Your task to perform on an android device: turn off translation in the chrome app Image 0: 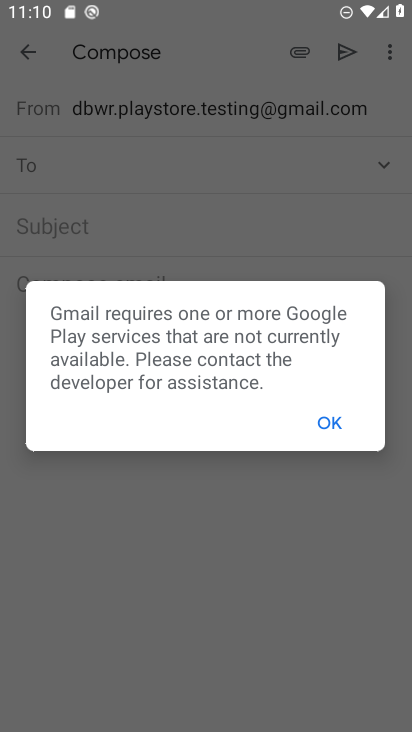
Step 0: press home button
Your task to perform on an android device: turn off translation in the chrome app Image 1: 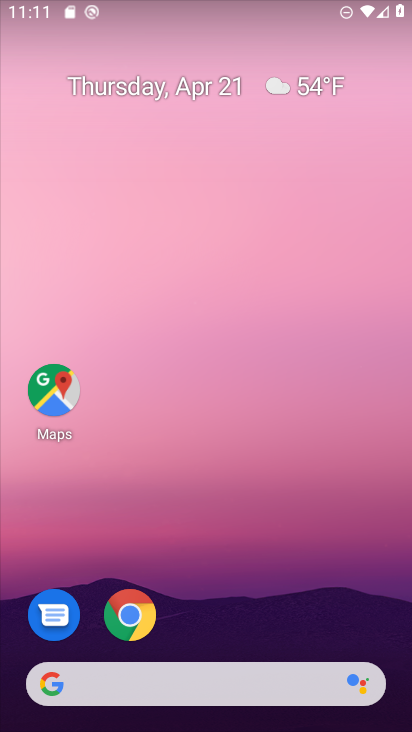
Step 1: click (132, 619)
Your task to perform on an android device: turn off translation in the chrome app Image 2: 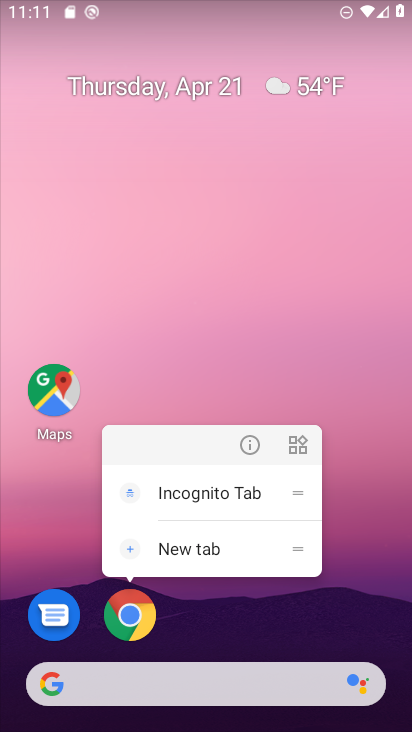
Step 2: click (132, 619)
Your task to perform on an android device: turn off translation in the chrome app Image 3: 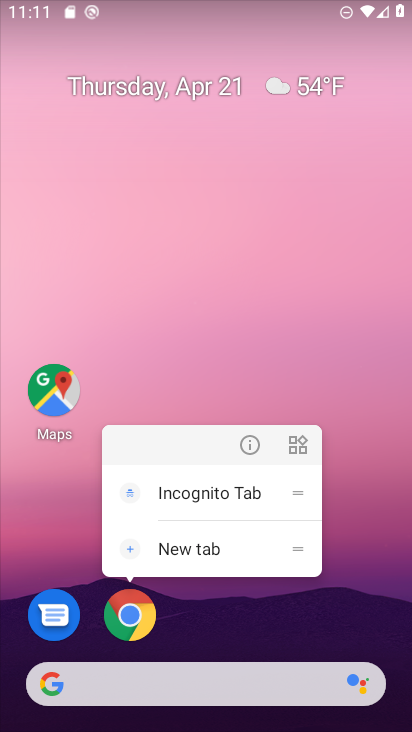
Step 3: click (133, 616)
Your task to perform on an android device: turn off translation in the chrome app Image 4: 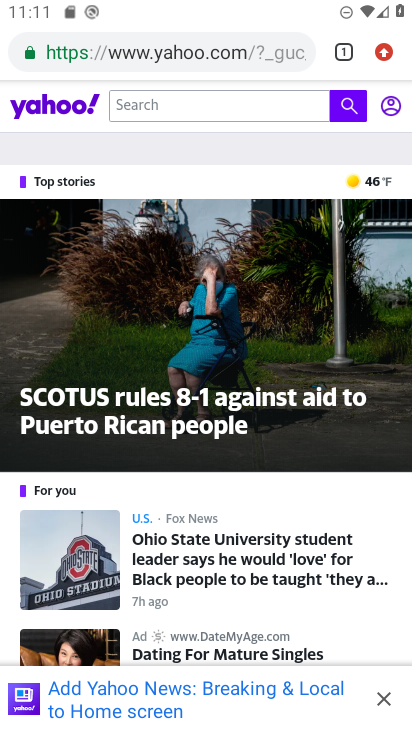
Step 4: click (376, 56)
Your task to perform on an android device: turn off translation in the chrome app Image 5: 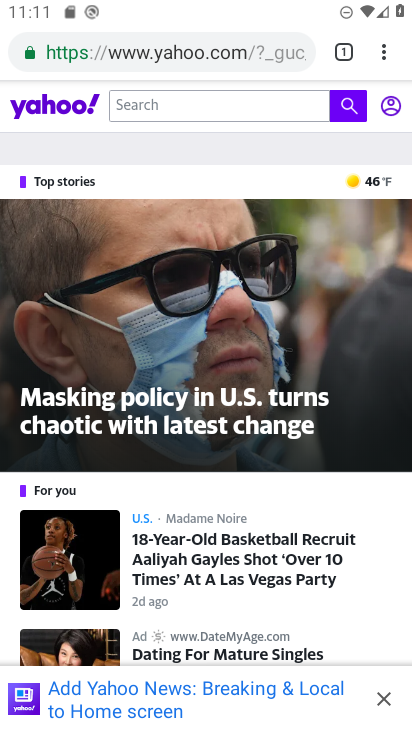
Step 5: click (376, 56)
Your task to perform on an android device: turn off translation in the chrome app Image 6: 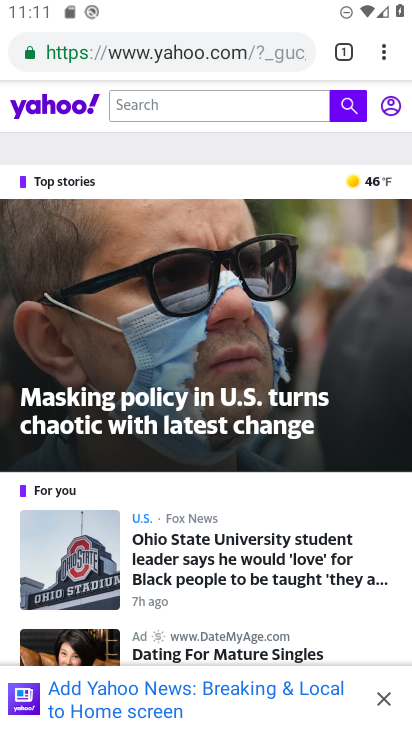
Step 6: click (376, 56)
Your task to perform on an android device: turn off translation in the chrome app Image 7: 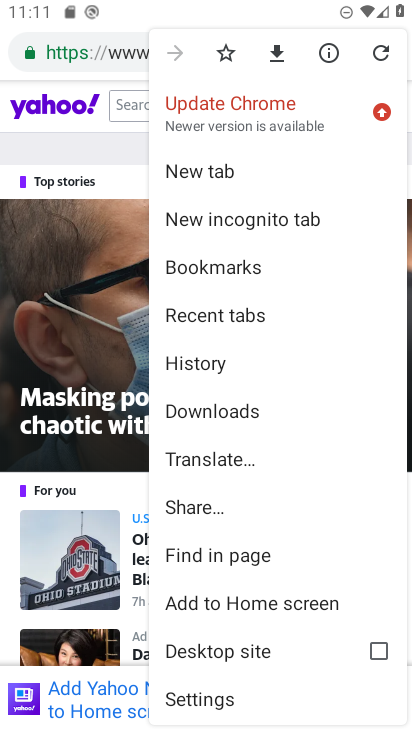
Step 7: click (275, 700)
Your task to perform on an android device: turn off translation in the chrome app Image 8: 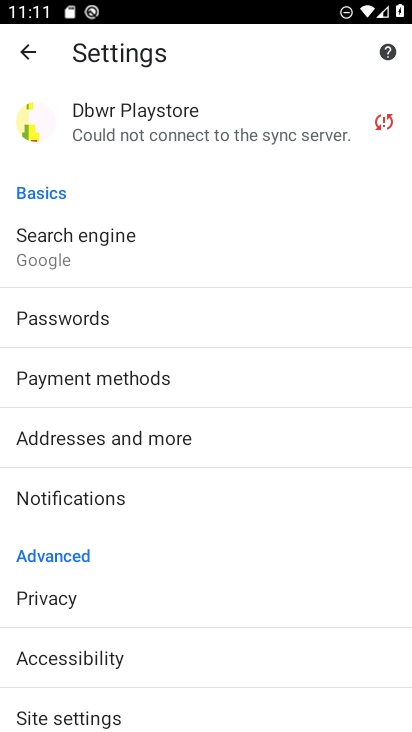
Step 8: drag from (156, 620) to (161, 545)
Your task to perform on an android device: turn off translation in the chrome app Image 9: 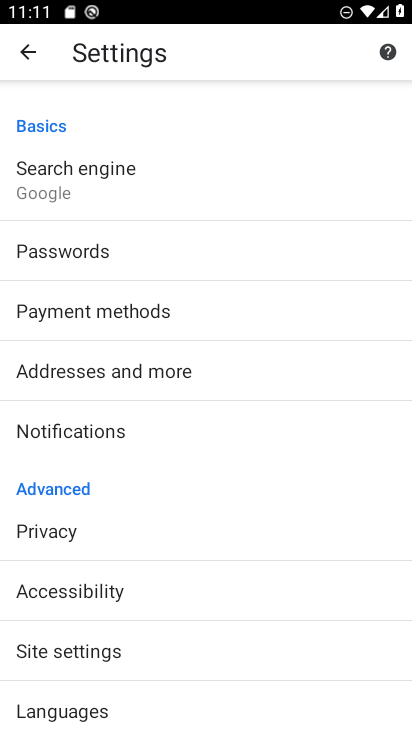
Step 9: drag from (133, 597) to (162, 467)
Your task to perform on an android device: turn off translation in the chrome app Image 10: 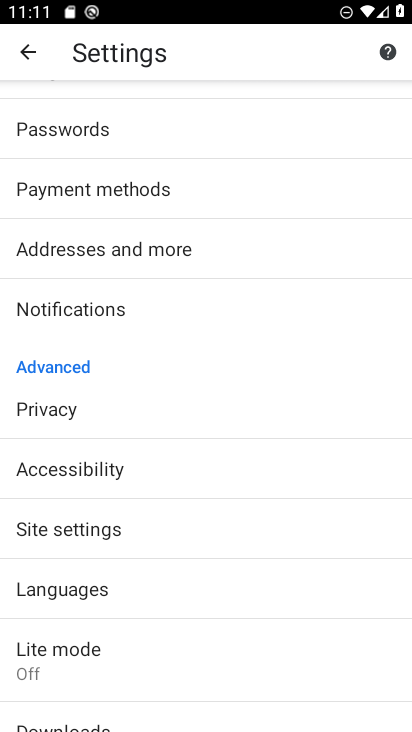
Step 10: click (136, 598)
Your task to perform on an android device: turn off translation in the chrome app Image 11: 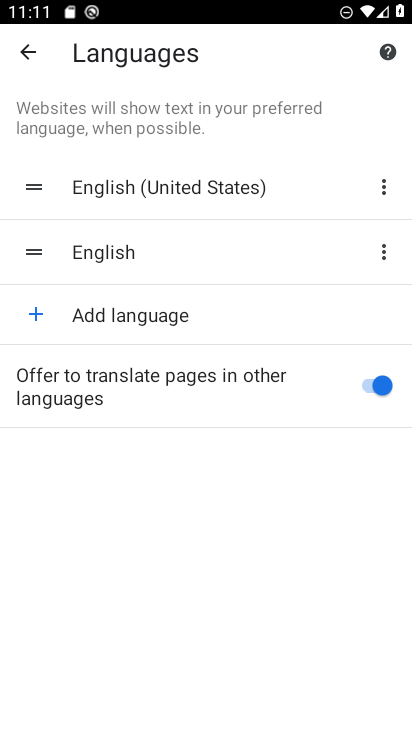
Step 11: click (362, 381)
Your task to perform on an android device: turn off translation in the chrome app Image 12: 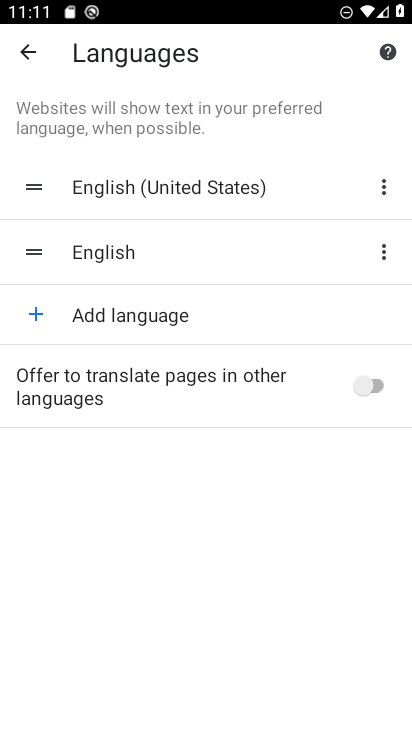
Step 12: task complete